Your task to perform on an android device: Set the phone to "Do not disturb". Image 0: 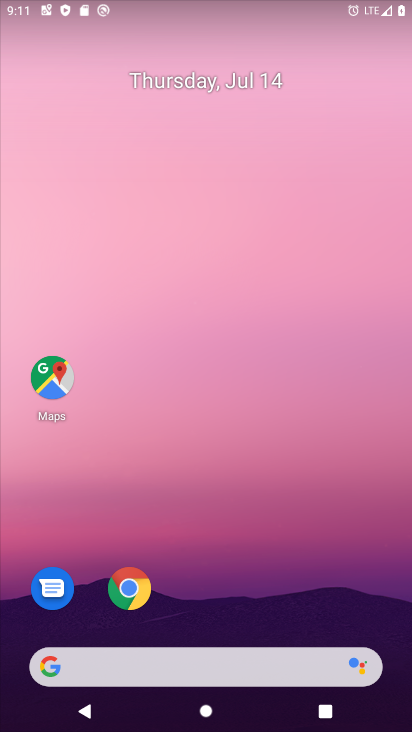
Step 0: drag from (306, 331) to (120, 1)
Your task to perform on an android device: Set the phone to "Do not disturb". Image 1: 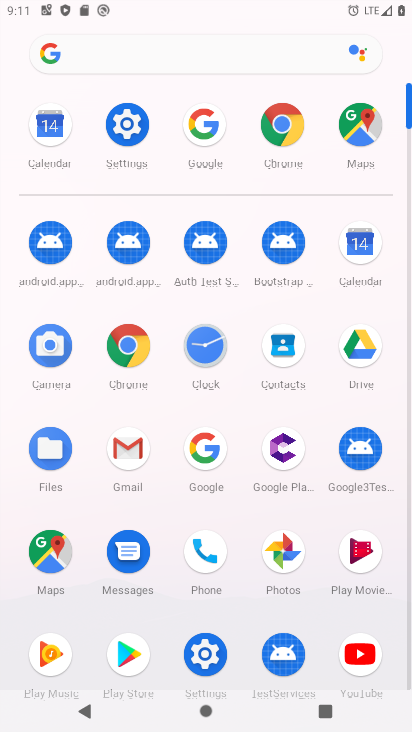
Step 1: click (120, 135)
Your task to perform on an android device: Set the phone to "Do not disturb". Image 2: 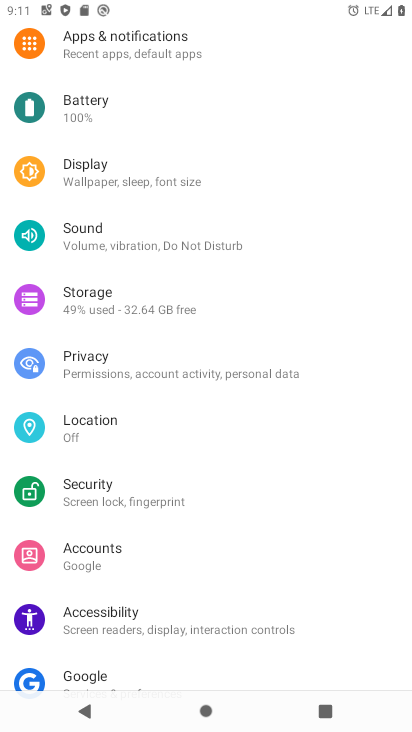
Step 2: drag from (134, 292) to (226, 506)
Your task to perform on an android device: Set the phone to "Do not disturb". Image 3: 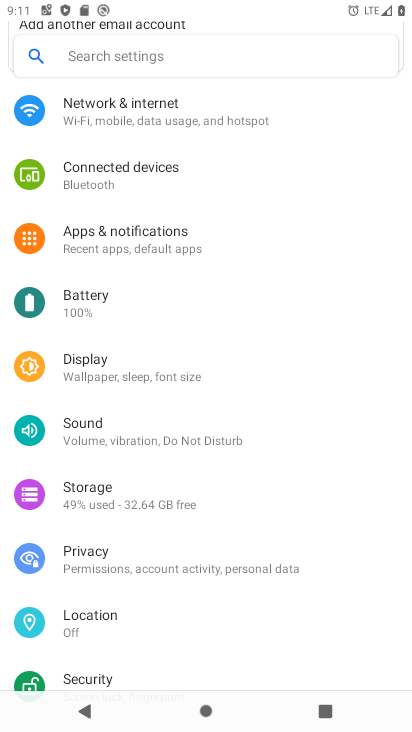
Step 3: click (166, 436)
Your task to perform on an android device: Set the phone to "Do not disturb". Image 4: 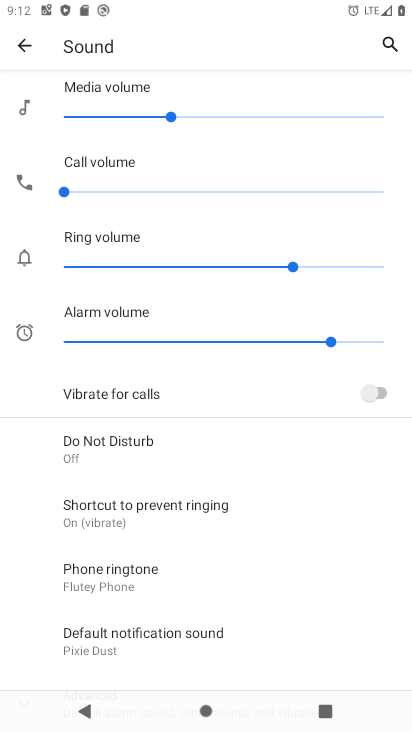
Step 4: click (89, 449)
Your task to perform on an android device: Set the phone to "Do not disturb". Image 5: 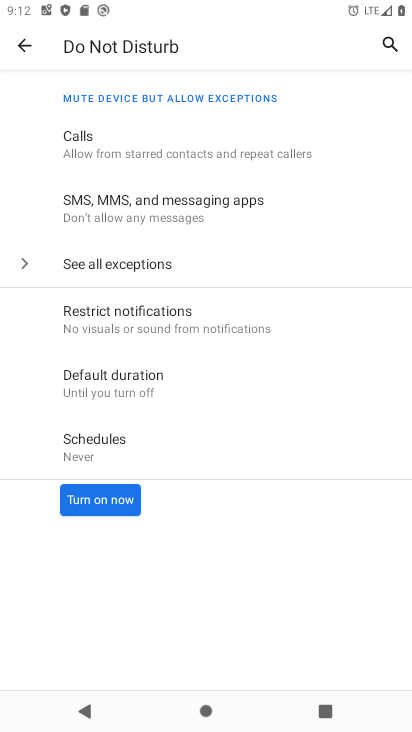
Step 5: click (105, 502)
Your task to perform on an android device: Set the phone to "Do not disturb". Image 6: 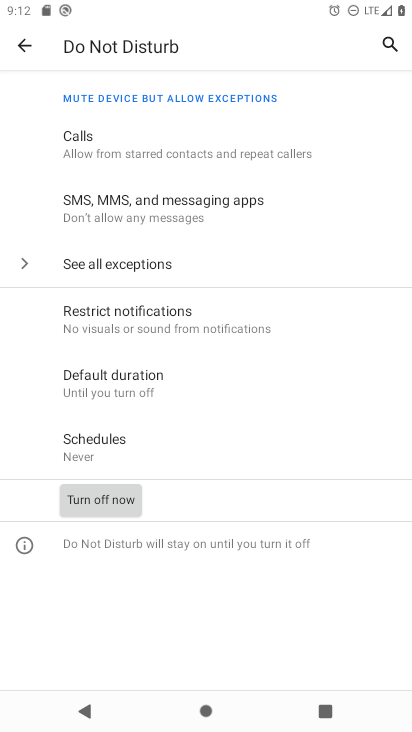
Step 6: task complete